Your task to perform on an android device: see sites visited before in the chrome app Image 0: 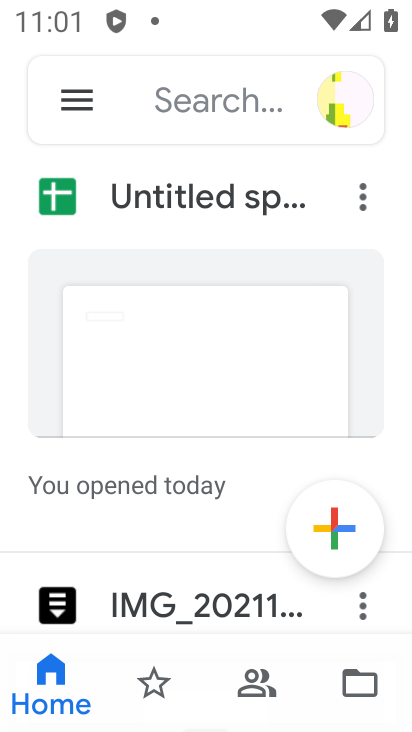
Step 0: press home button
Your task to perform on an android device: see sites visited before in the chrome app Image 1: 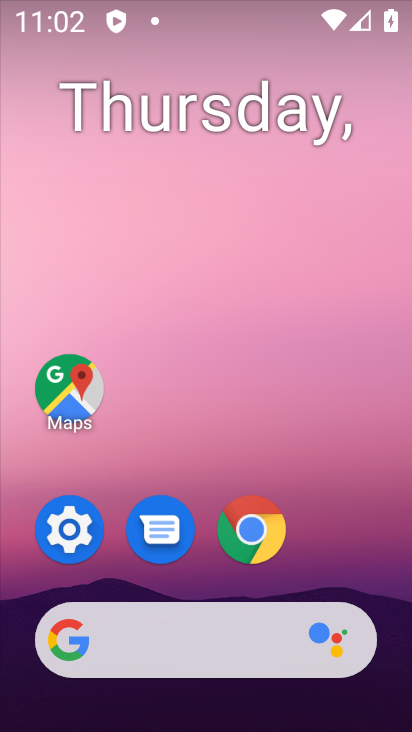
Step 1: click (244, 514)
Your task to perform on an android device: see sites visited before in the chrome app Image 2: 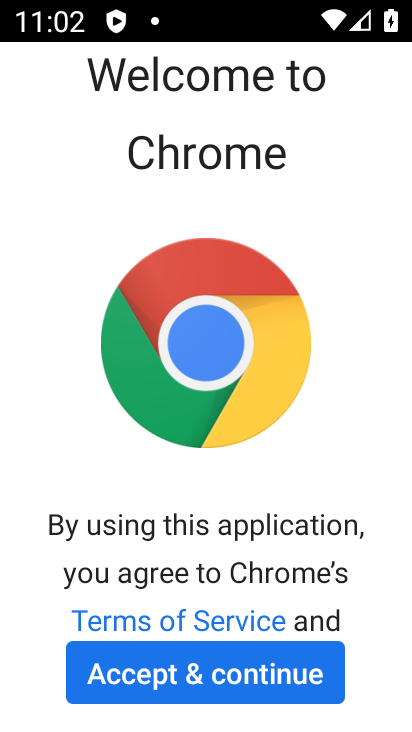
Step 2: click (216, 688)
Your task to perform on an android device: see sites visited before in the chrome app Image 3: 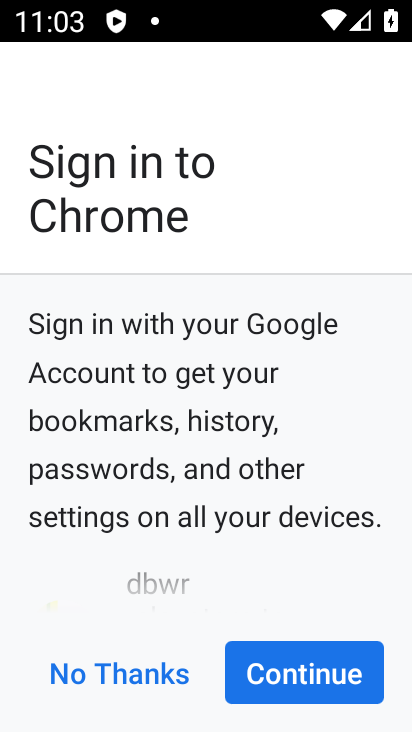
Step 3: click (305, 666)
Your task to perform on an android device: see sites visited before in the chrome app Image 4: 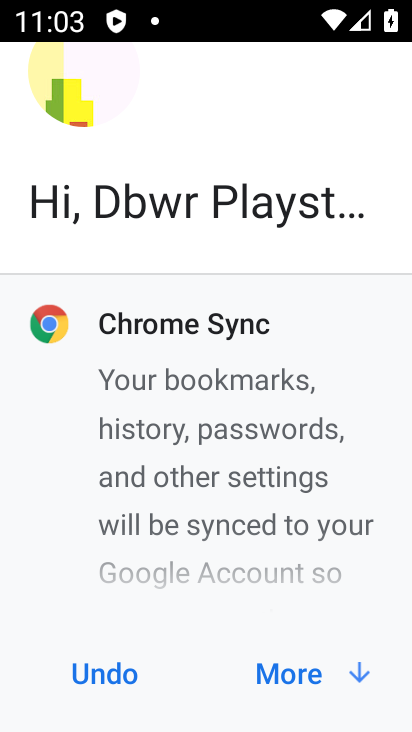
Step 4: click (310, 689)
Your task to perform on an android device: see sites visited before in the chrome app Image 5: 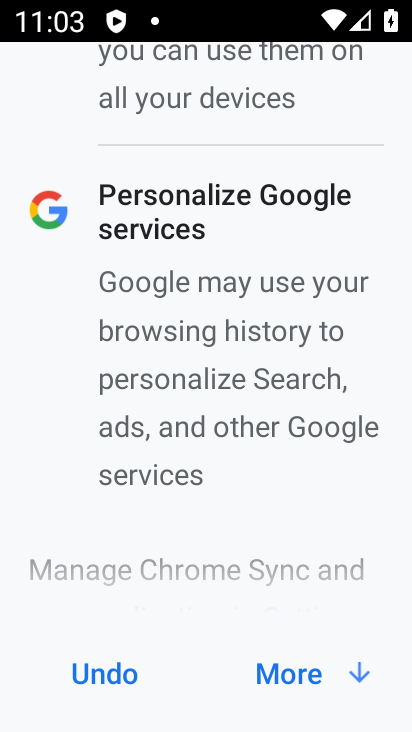
Step 5: click (314, 681)
Your task to perform on an android device: see sites visited before in the chrome app Image 6: 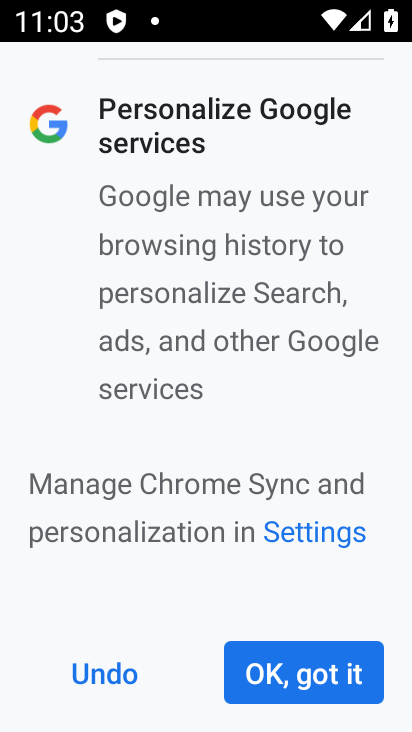
Step 6: click (314, 681)
Your task to perform on an android device: see sites visited before in the chrome app Image 7: 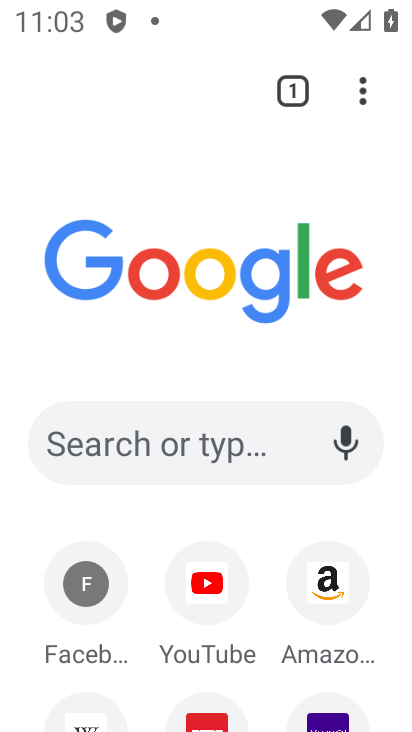
Step 7: click (361, 95)
Your task to perform on an android device: see sites visited before in the chrome app Image 8: 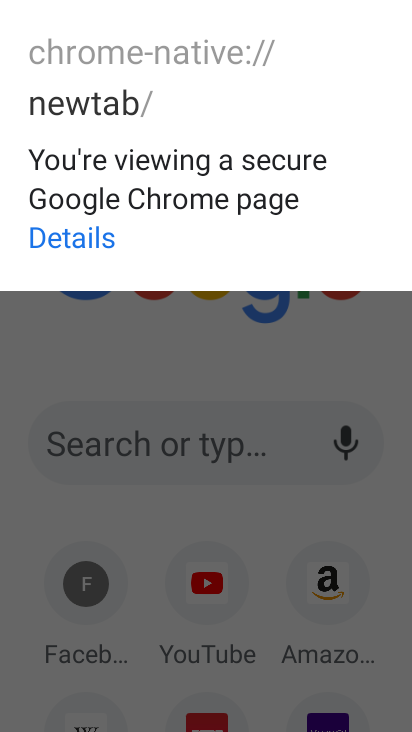
Step 8: click (361, 94)
Your task to perform on an android device: see sites visited before in the chrome app Image 9: 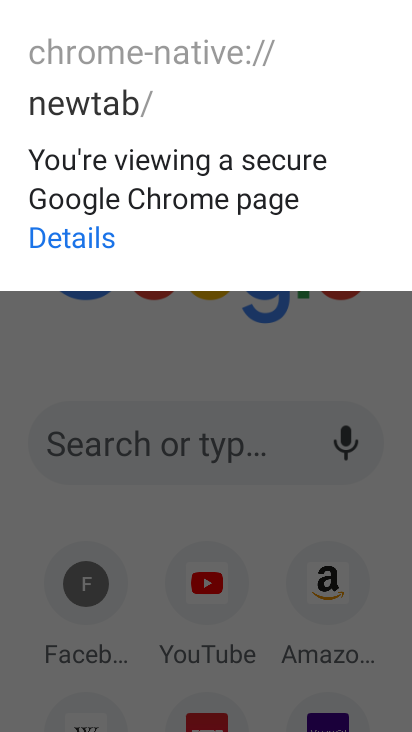
Step 9: click (166, 337)
Your task to perform on an android device: see sites visited before in the chrome app Image 10: 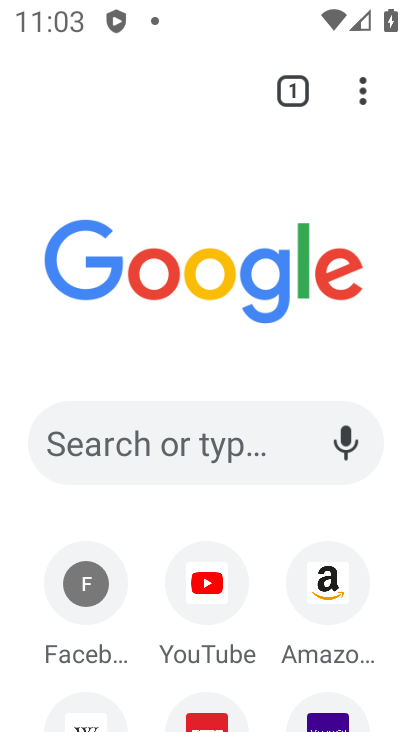
Step 10: click (368, 89)
Your task to perform on an android device: see sites visited before in the chrome app Image 11: 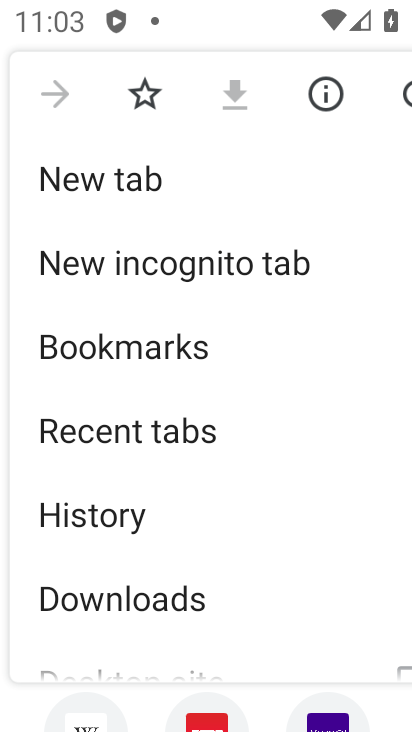
Step 11: click (54, 440)
Your task to perform on an android device: see sites visited before in the chrome app Image 12: 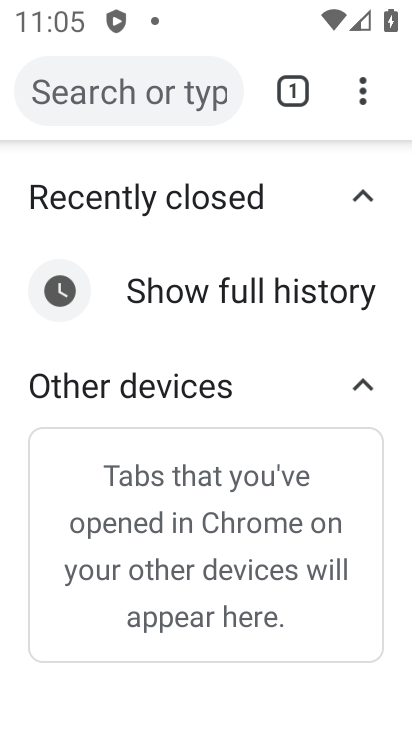
Step 12: task complete